Your task to perform on an android device: manage bookmarks in the chrome app Image 0: 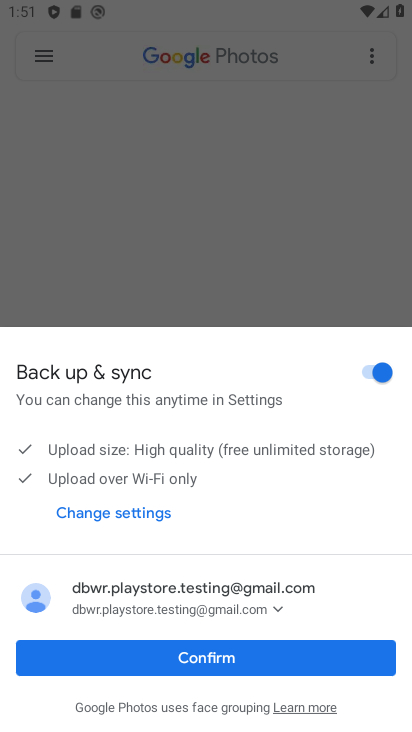
Step 0: press home button
Your task to perform on an android device: manage bookmarks in the chrome app Image 1: 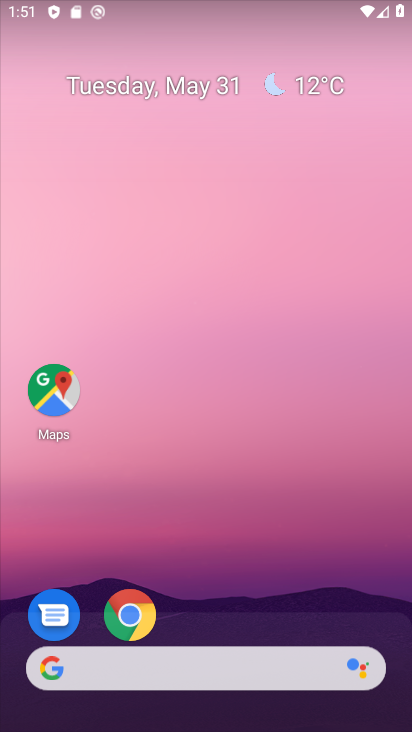
Step 1: click (122, 613)
Your task to perform on an android device: manage bookmarks in the chrome app Image 2: 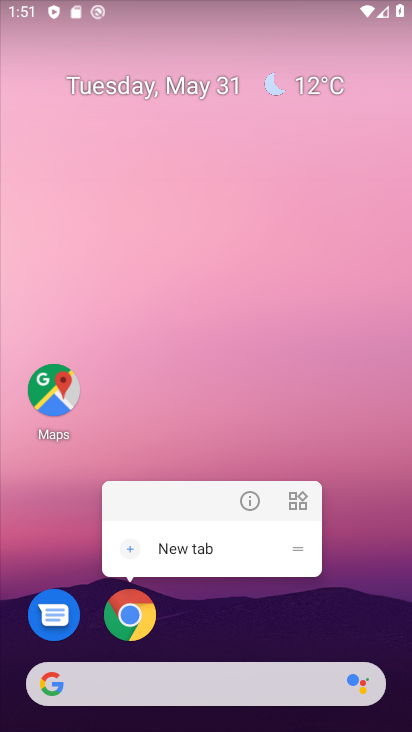
Step 2: click (147, 623)
Your task to perform on an android device: manage bookmarks in the chrome app Image 3: 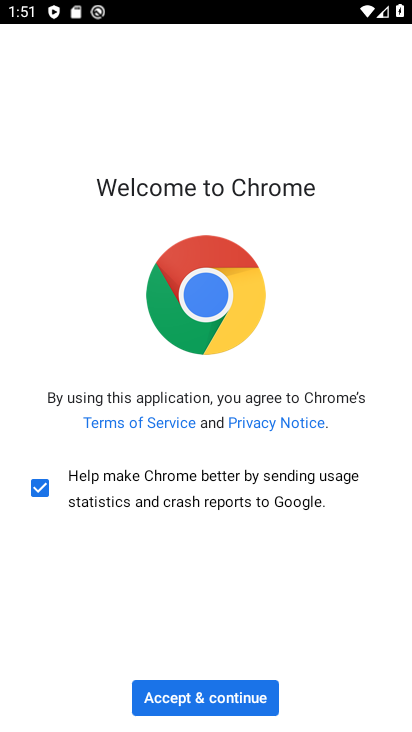
Step 3: click (249, 701)
Your task to perform on an android device: manage bookmarks in the chrome app Image 4: 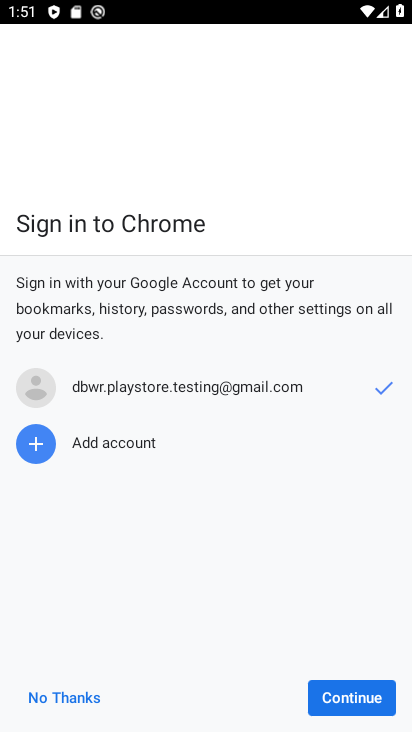
Step 4: click (378, 706)
Your task to perform on an android device: manage bookmarks in the chrome app Image 5: 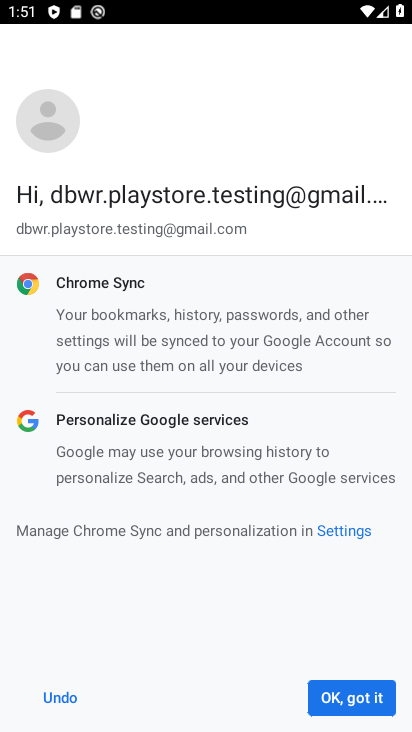
Step 5: click (353, 693)
Your task to perform on an android device: manage bookmarks in the chrome app Image 6: 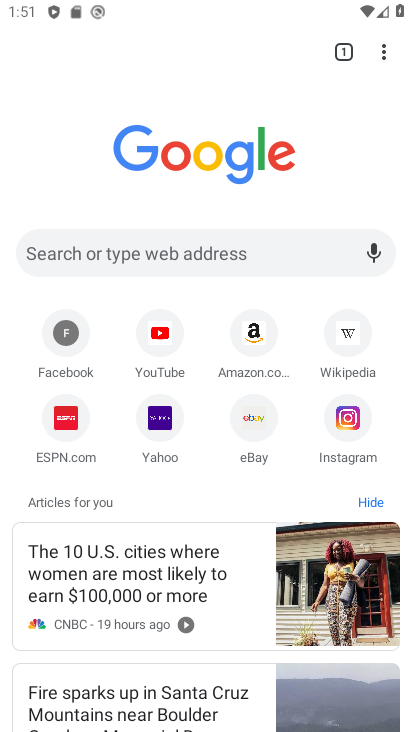
Step 6: task complete